Your task to perform on an android device: Toggle the flashlight Image 0: 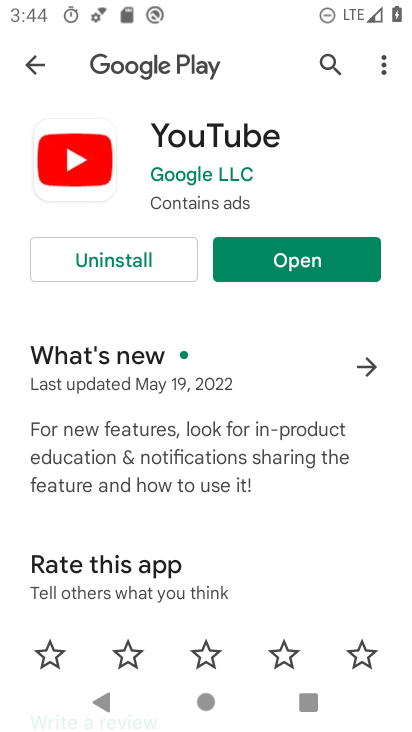
Step 0: press home button
Your task to perform on an android device: Toggle the flashlight Image 1: 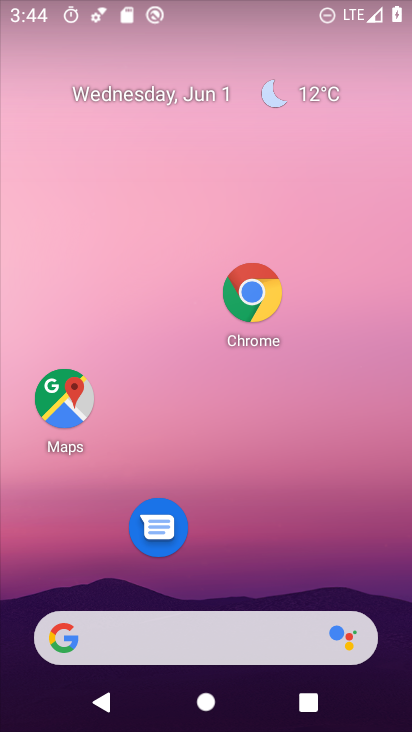
Step 1: task complete